Your task to perform on an android device: turn off priority inbox in the gmail app Image 0: 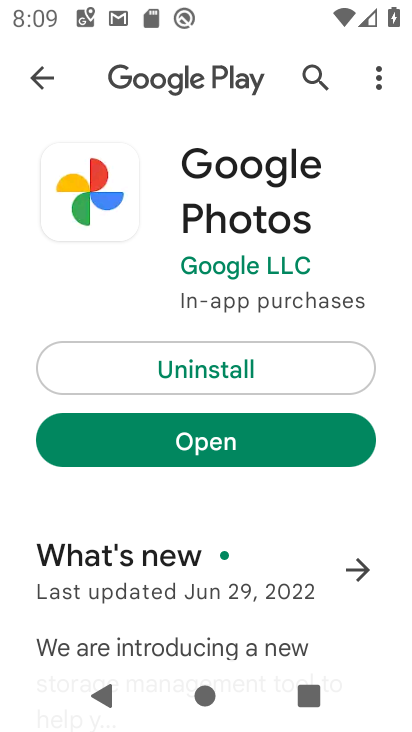
Step 0: press home button
Your task to perform on an android device: turn off priority inbox in the gmail app Image 1: 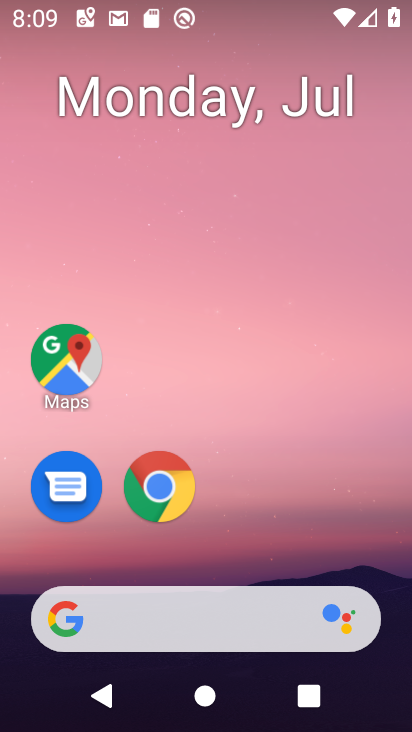
Step 1: drag from (353, 534) to (350, 156)
Your task to perform on an android device: turn off priority inbox in the gmail app Image 2: 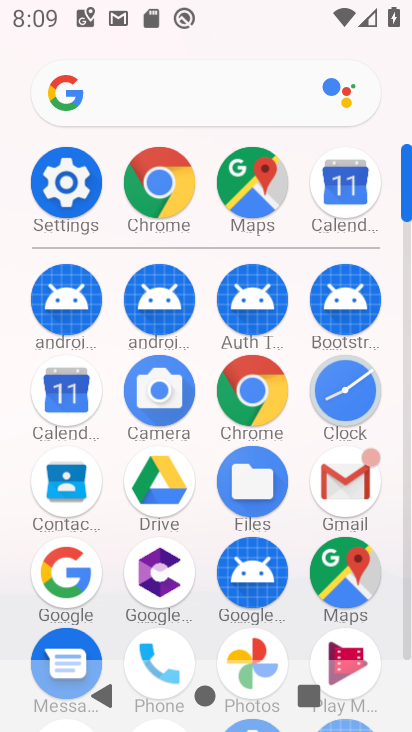
Step 2: click (346, 487)
Your task to perform on an android device: turn off priority inbox in the gmail app Image 3: 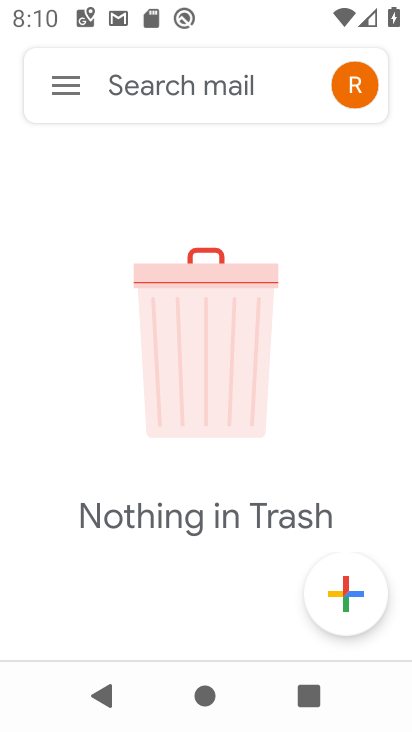
Step 3: click (62, 79)
Your task to perform on an android device: turn off priority inbox in the gmail app Image 4: 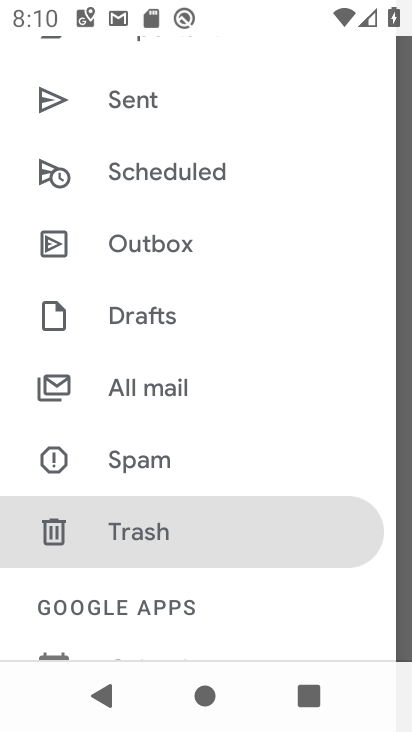
Step 4: drag from (248, 274) to (248, 370)
Your task to perform on an android device: turn off priority inbox in the gmail app Image 5: 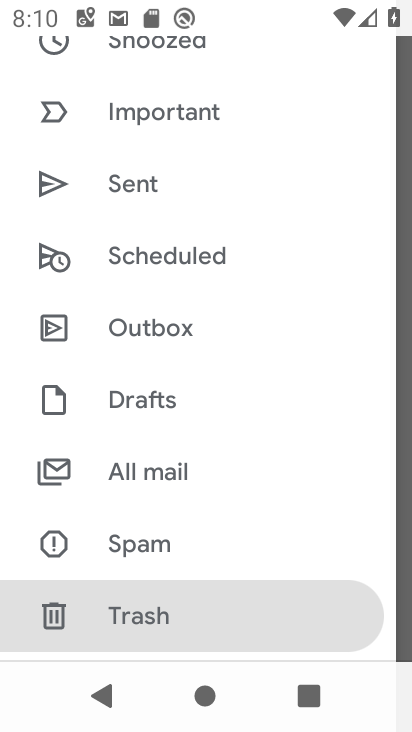
Step 5: drag from (287, 251) to (289, 372)
Your task to perform on an android device: turn off priority inbox in the gmail app Image 6: 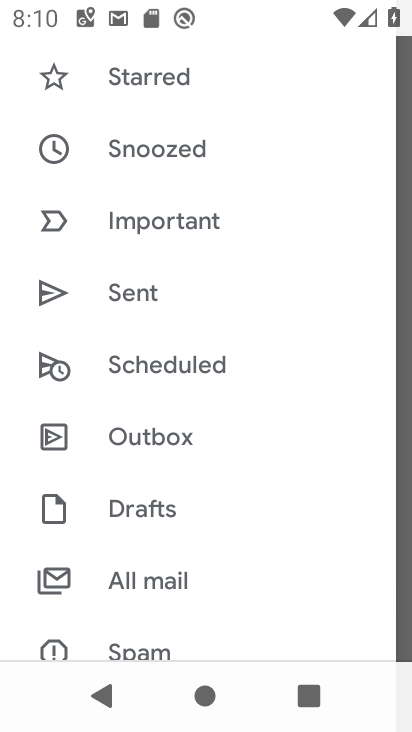
Step 6: drag from (302, 221) to (287, 449)
Your task to perform on an android device: turn off priority inbox in the gmail app Image 7: 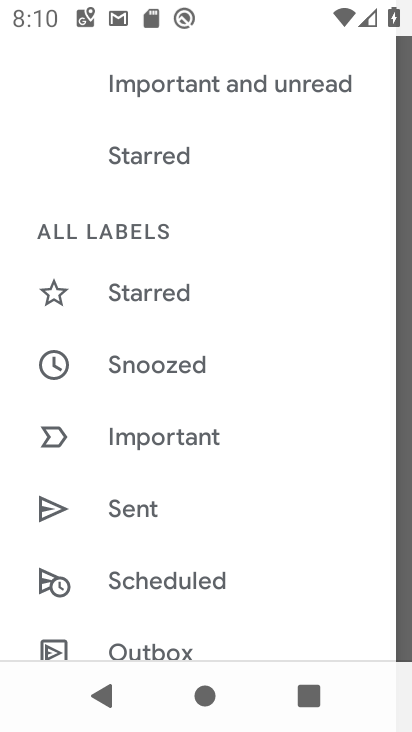
Step 7: drag from (300, 236) to (300, 441)
Your task to perform on an android device: turn off priority inbox in the gmail app Image 8: 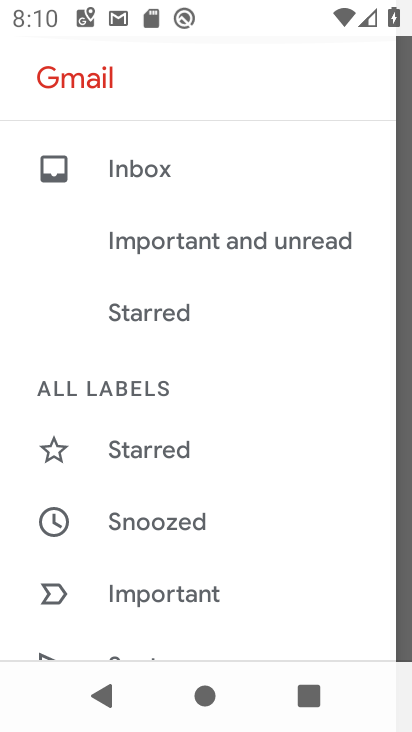
Step 8: drag from (293, 465) to (295, 357)
Your task to perform on an android device: turn off priority inbox in the gmail app Image 9: 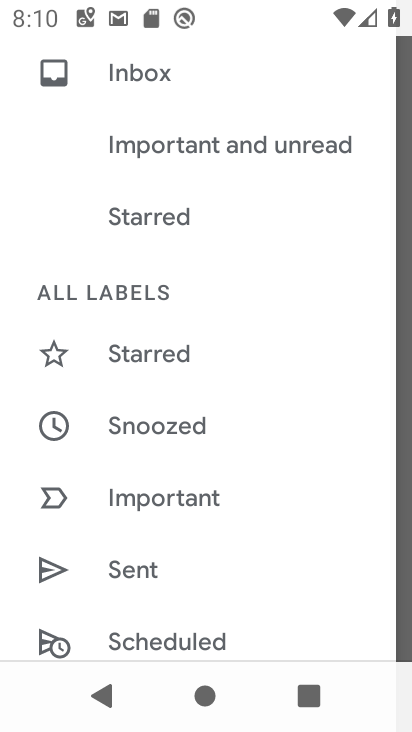
Step 9: drag from (294, 464) to (297, 366)
Your task to perform on an android device: turn off priority inbox in the gmail app Image 10: 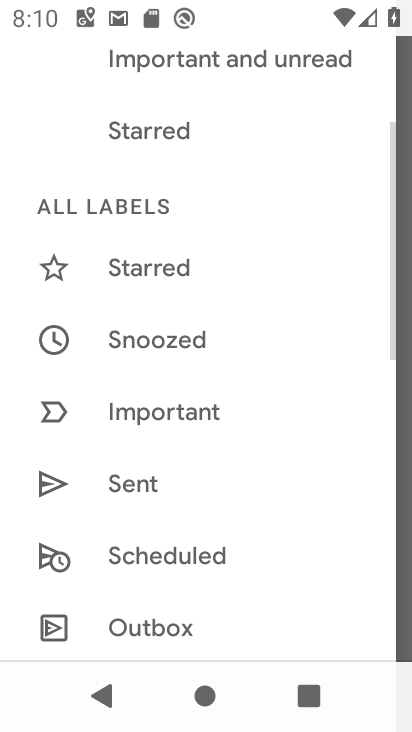
Step 10: drag from (299, 476) to (307, 376)
Your task to perform on an android device: turn off priority inbox in the gmail app Image 11: 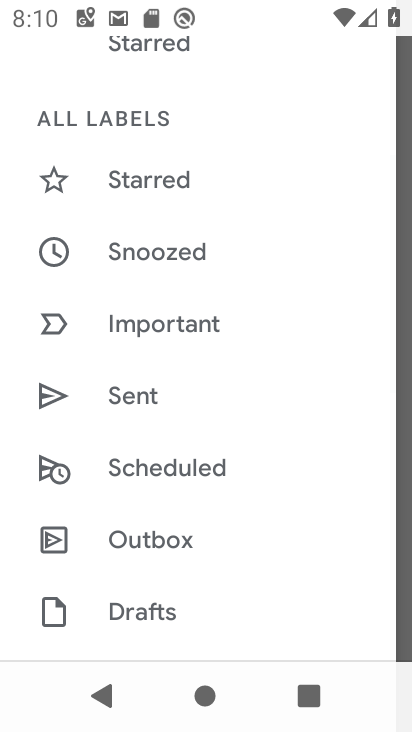
Step 11: drag from (301, 475) to (297, 368)
Your task to perform on an android device: turn off priority inbox in the gmail app Image 12: 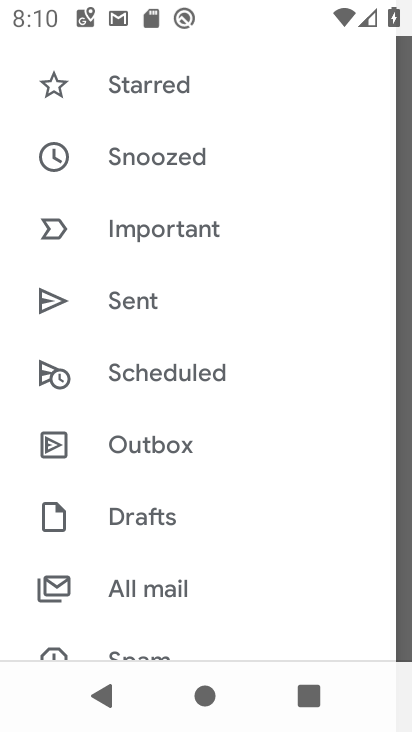
Step 12: drag from (297, 494) to (288, 250)
Your task to perform on an android device: turn off priority inbox in the gmail app Image 13: 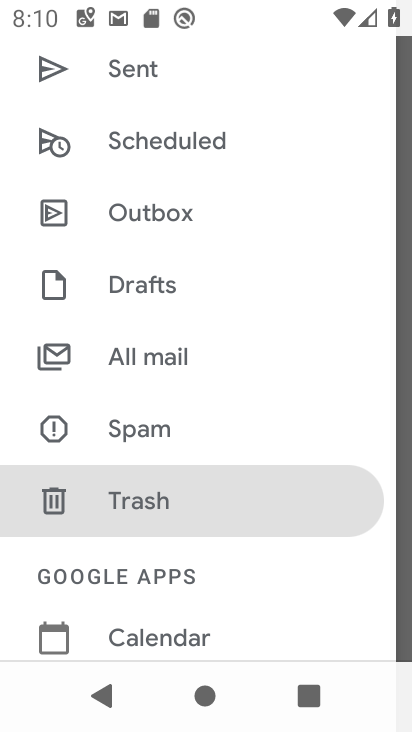
Step 13: drag from (294, 550) to (301, 287)
Your task to perform on an android device: turn off priority inbox in the gmail app Image 14: 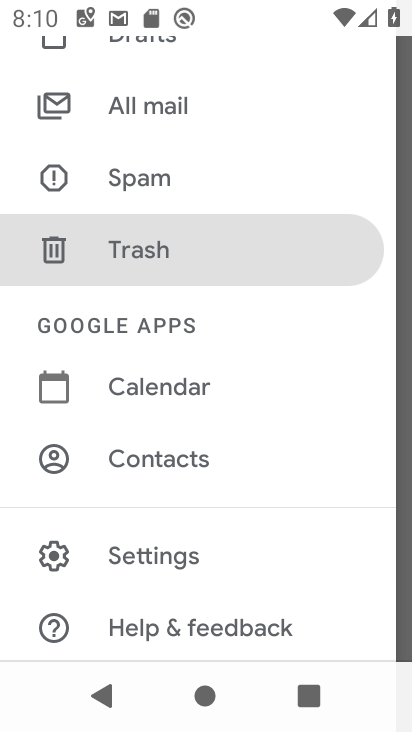
Step 14: drag from (289, 551) to (283, 404)
Your task to perform on an android device: turn off priority inbox in the gmail app Image 15: 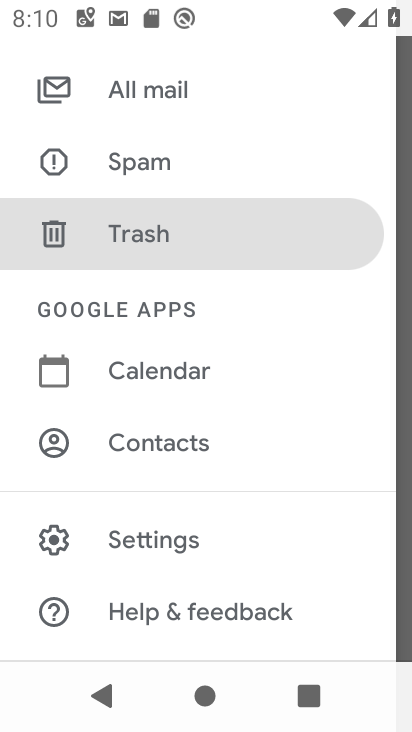
Step 15: click (196, 546)
Your task to perform on an android device: turn off priority inbox in the gmail app Image 16: 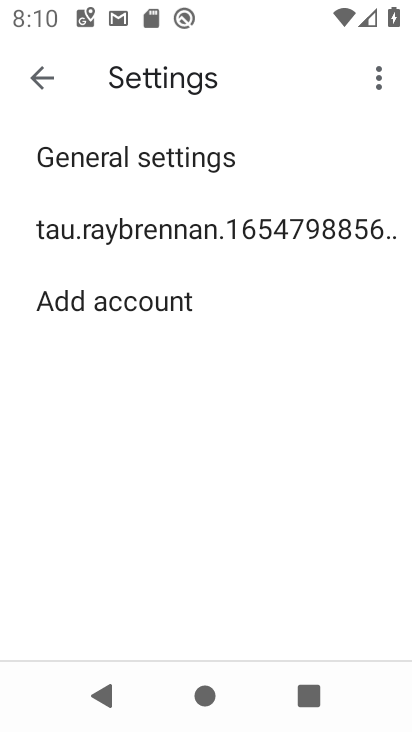
Step 16: click (236, 229)
Your task to perform on an android device: turn off priority inbox in the gmail app Image 17: 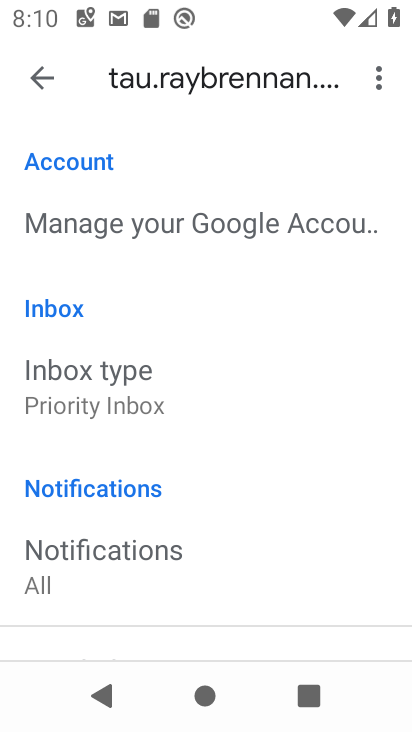
Step 17: click (163, 402)
Your task to perform on an android device: turn off priority inbox in the gmail app Image 18: 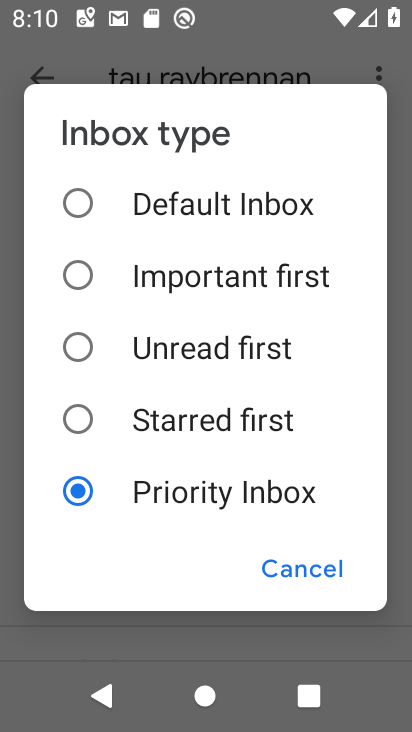
Step 18: click (74, 202)
Your task to perform on an android device: turn off priority inbox in the gmail app Image 19: 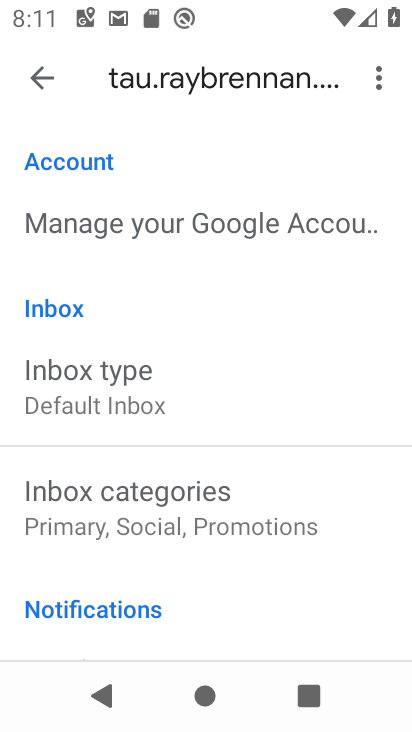
Step 19: task complete